Your task to perform on an android device: open device folders in google photos Image 0: 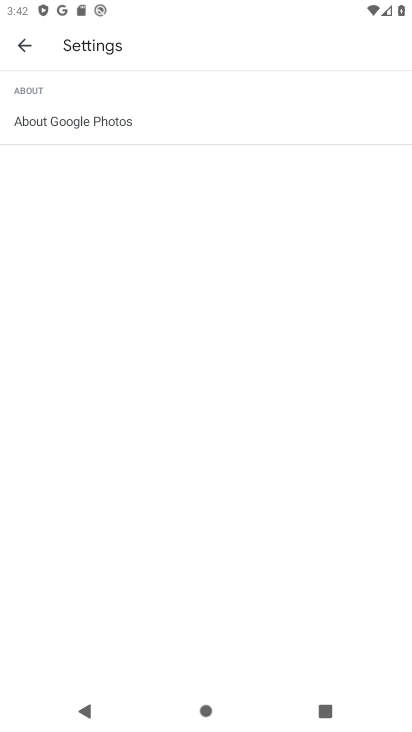
Step 0: click (37, 54)
Your task to perform on an android device: open device folders in google photos Image 1: 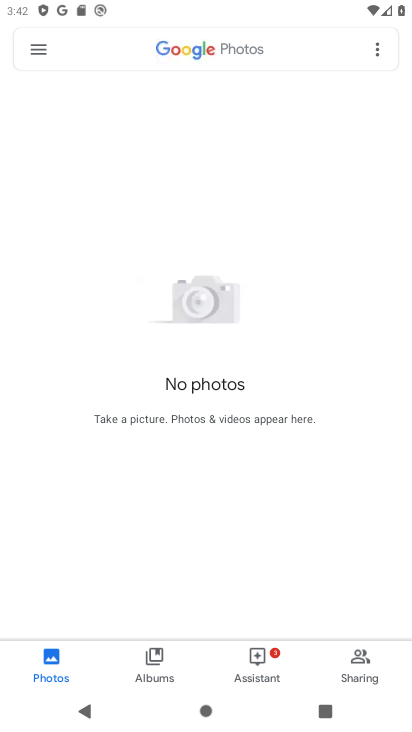
Step 1: click (37, 54)
Your task to perform on an android device: open device folders in google photos Image 2: 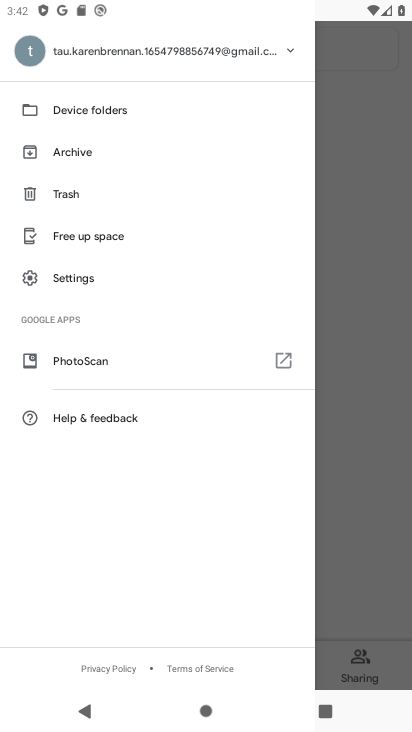
Step 2: click (87, 112)
Your task to perform on an android device: open device folders in google photos Image 3: 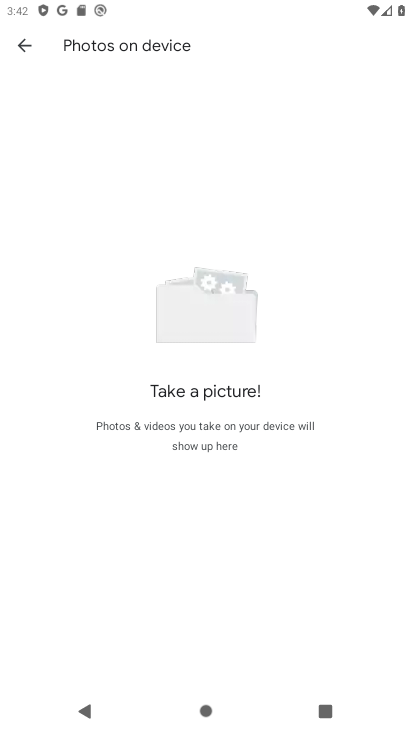
Step 3: task complete